Your task to perform on an android device: allow cookies in the chrome app Image 0: 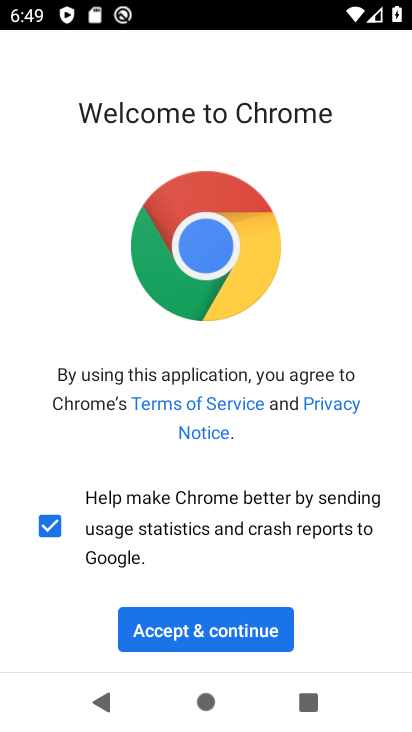
Step 0: press home button
Your task to perform on an android device: allow cookies in the chrome app Image 1: 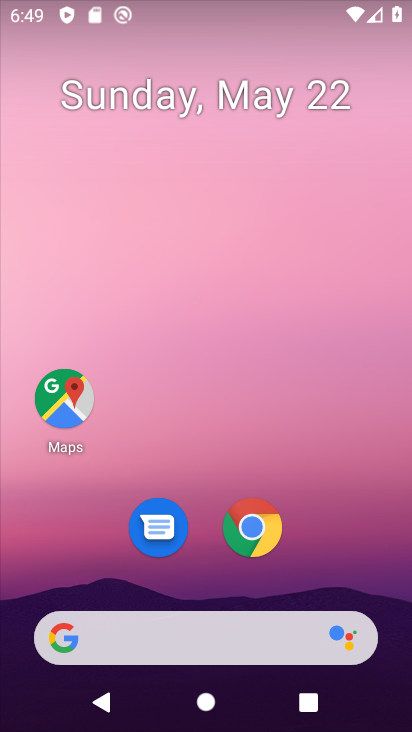
Step 1: drag from (362, 508) to (339, 116)
Your task to perform on an android device: allow cookies in the chrome app Image 2: 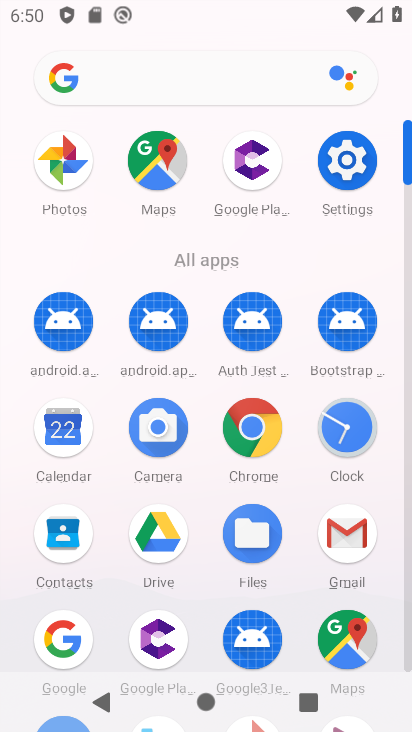
Step 2: click (265, 428)
Your task to perform on an android device: allow cookies in the chrome app Image 3: 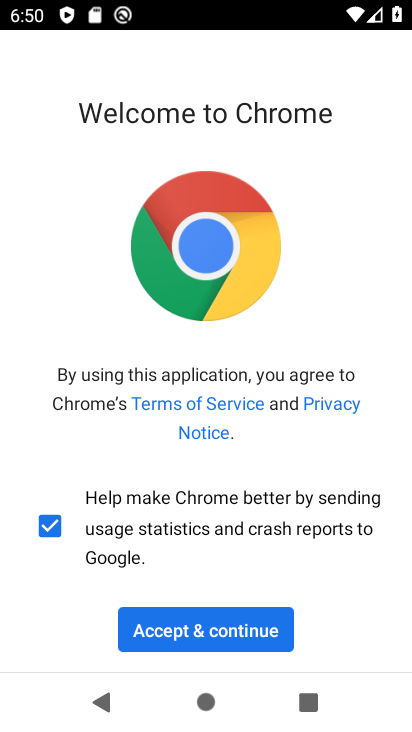
Step 3: click (216, 632)
Your task to perform on an android device: allow cookies in the chrome app Image 4: 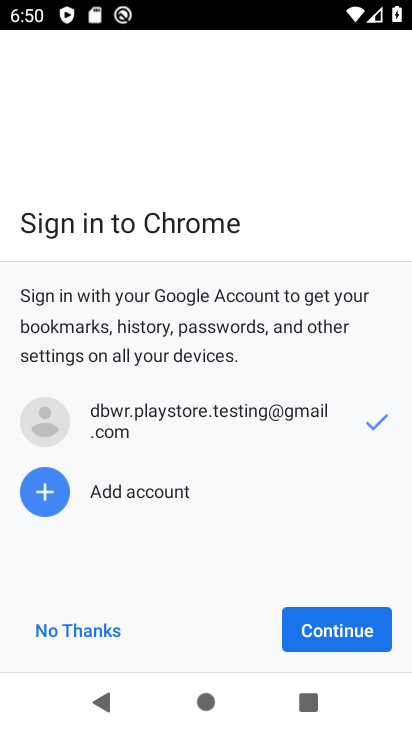
Step 4: click (110, 616)
Your task to perform on an android device: allow cookies in the chrome app Image 5: 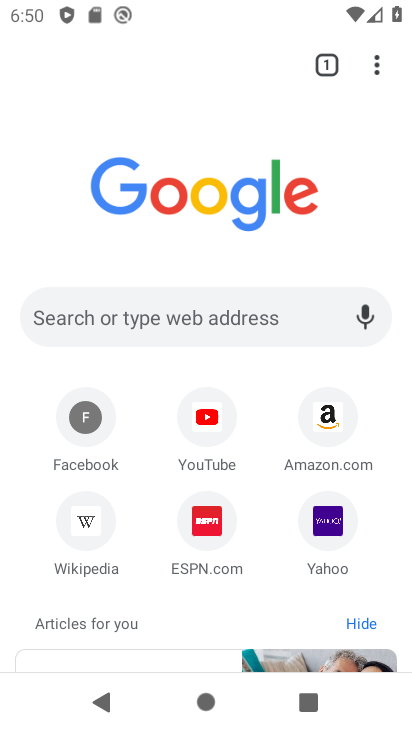
Step 5: drag from (381, 67) to (226, 529)
Your task to perform on an android device: allow cookies in the chrome app Image 6: 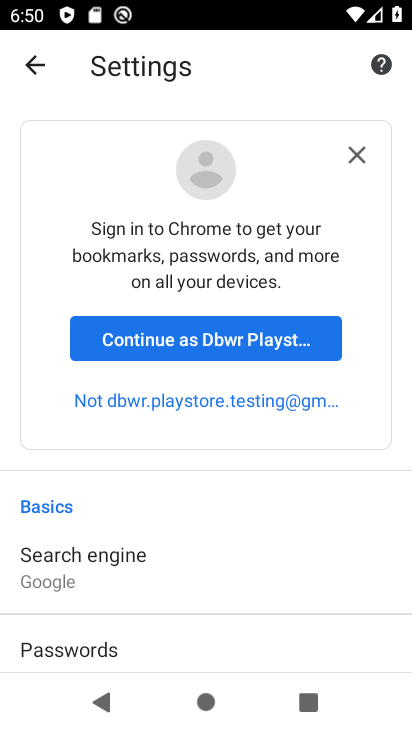
Step 6: drag from (179, 616) to (214, 240)
Your task to perform on an android device: allow cookies in the chrome app Image 7: 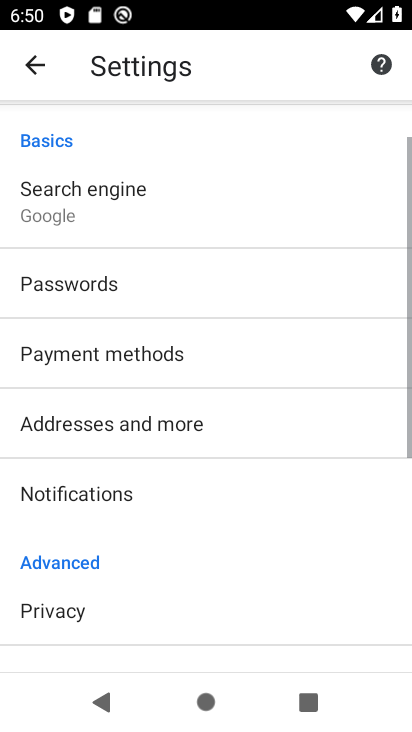
Step 7: drag from (280, 554) to (244, 229)
Your task to perform on an android device: allow cookies in the chrome app Image 8: 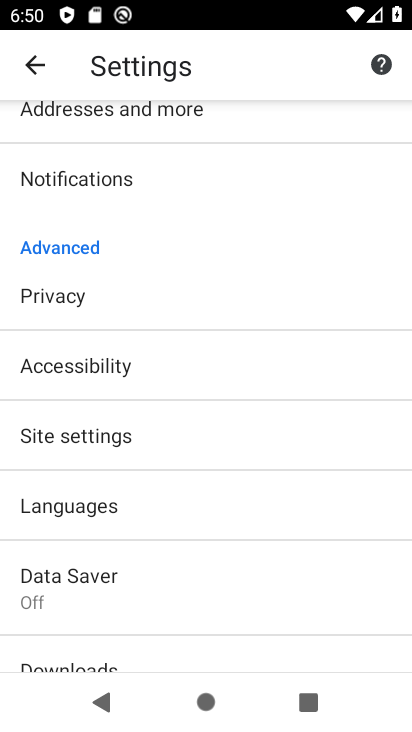
Step 8: click (88, 430)
Your task to perform on an android device: allow cookies in the chrome app Image 9: 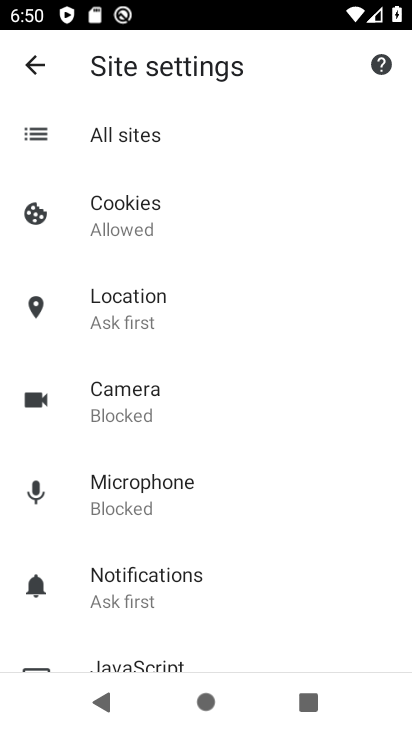
Step 9: click (126, 230)
Your task to perform on an android device: allow cookies in the chrome app Image 10: 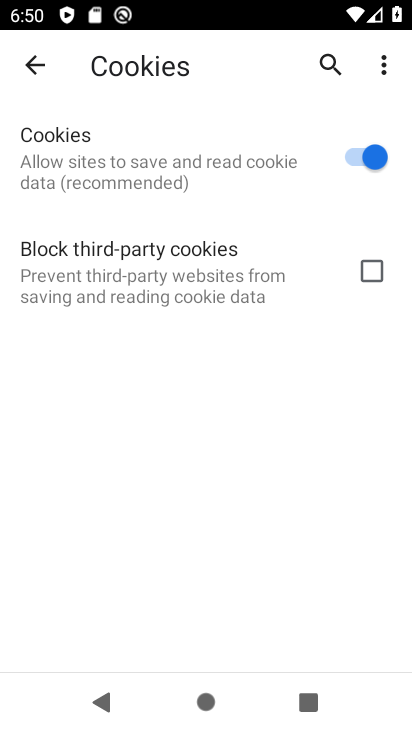
Step 10: task complete